Your task to perform on an android device: open app "Expedia: Hotels, Flights & Car" Image 0: 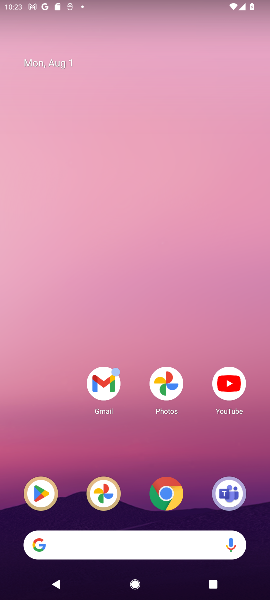
Step 0: drag from (67, 520) to (79, 79)
Your task to perform on an android device: open app "Expedia: Hotels, Flights & Car" Image 1: 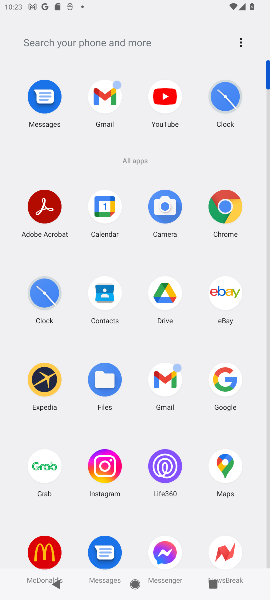
Step 1: click (55, 390)
Your task to perform on an android device: open app "Expedia: Hotels, Flights & Car" Image 2: 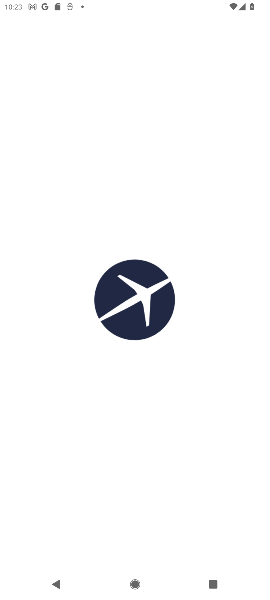
Step 2: task complete